Your task to perform on an android device: turn vacation reply on in the gmail app Image 0: 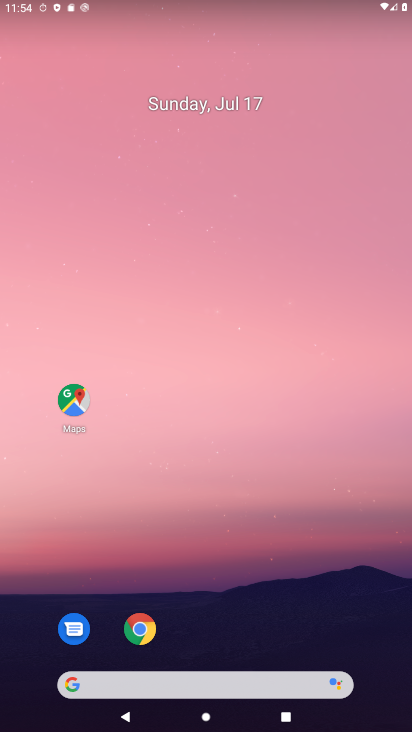
Step 0: drag from (248, 635) to (270, 16)
Your task to perform on an android device: turn vacation reply on in the gmail app Image 1: 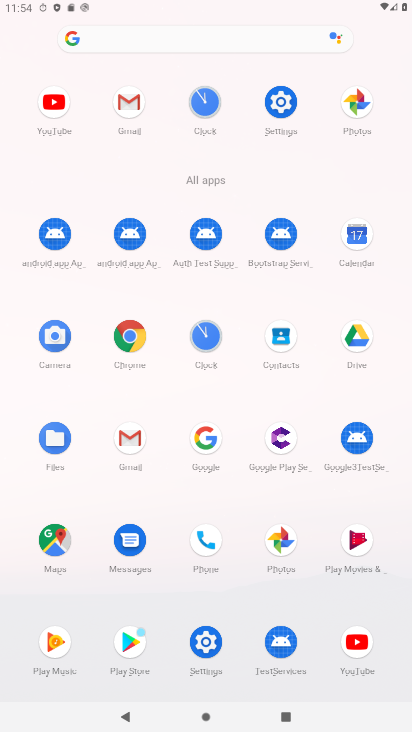
Step 1: click (125, 97)
Your task to perform on an android device: turn vacation reply on in the gmail app Image 2: 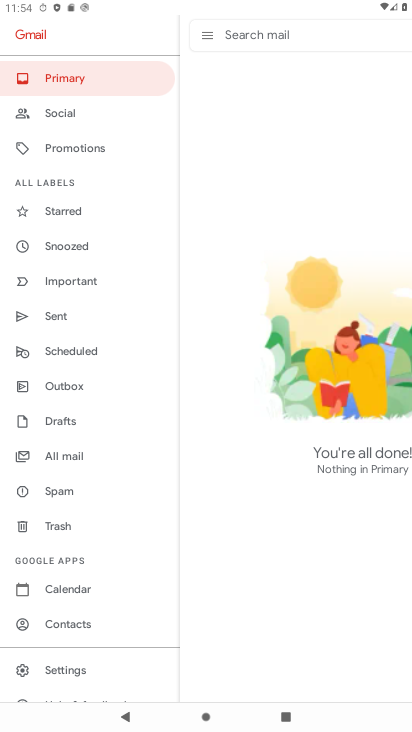
Step 2: click (101, 664)
Your task to perform on an android device: turn vacation reply on in the gmail app Image 3: 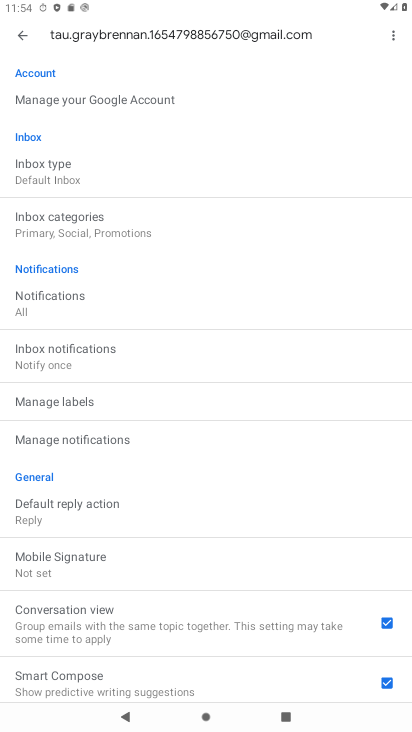
Step 3: drag from (164, 657) to (209, 237)
Your task to perform on an android device: turn vacation reply on in the gmail app Image 4: 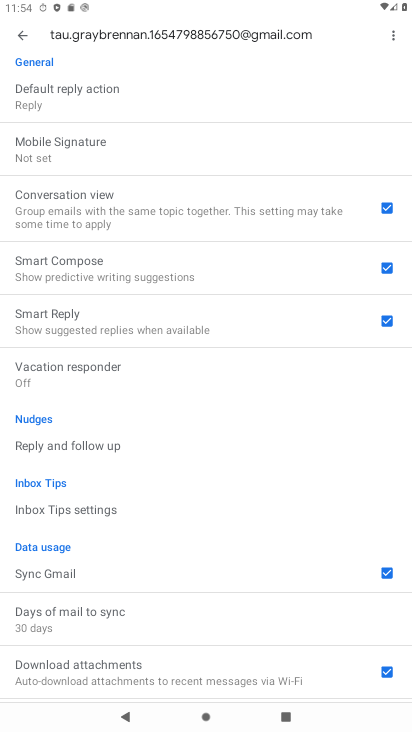
Step 4: click (87, 369)
Your task to perform on an android device: turn vacation reply on in the gmail app Image 5: 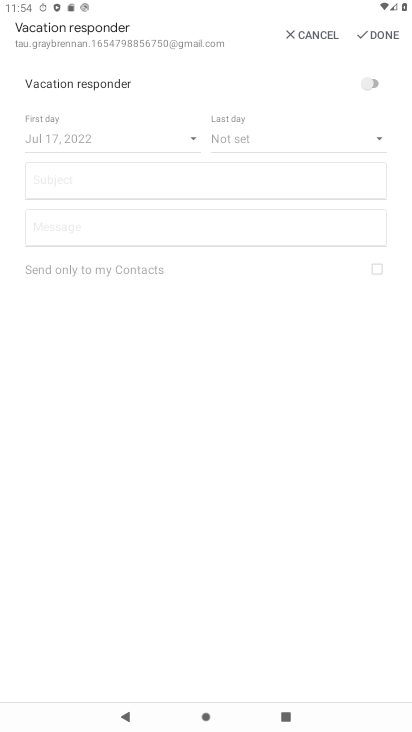
Step 5: click (377, 27)
Your task to perform on an android device: turn vacation reply on in the gmail app Image 6: 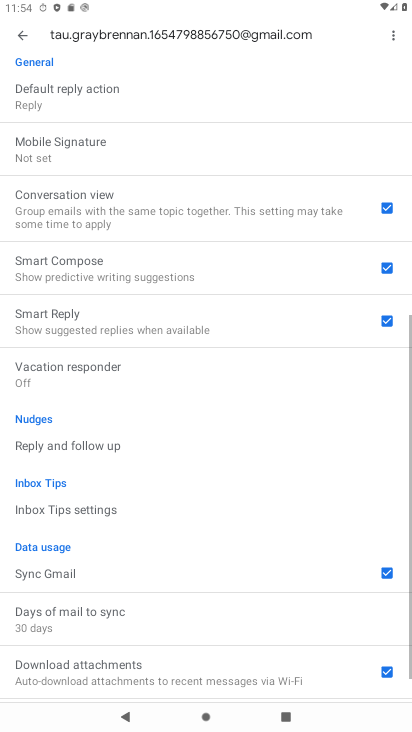
Step 6: task complete